Your task to perform on an android device: Search for sushi restaurants on Maps Image 0: 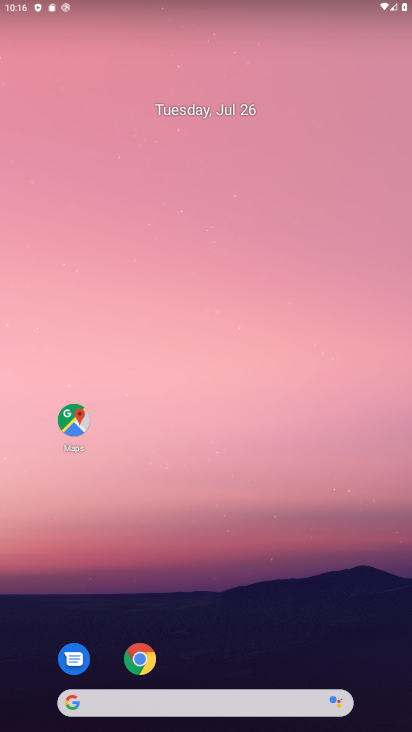
Step 0: press home button
Your task to perform on an android device: Search for sushi restaurants on Maps Image 1: 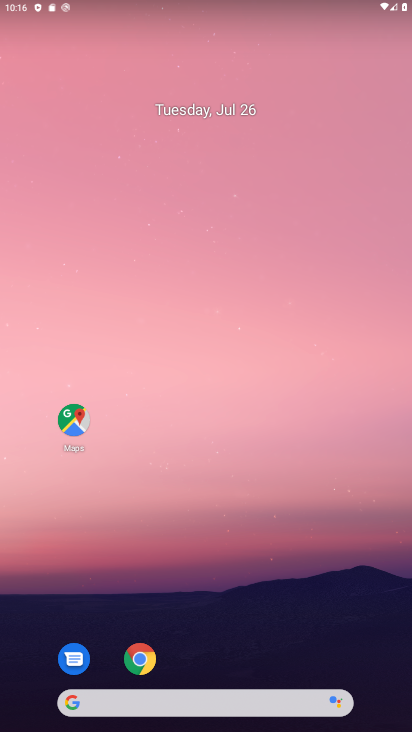
Step 1: drag from (337, 628) to (406, 56)
Your task to perform on an android device: Search for sushi restaurants on Maps Image 2: 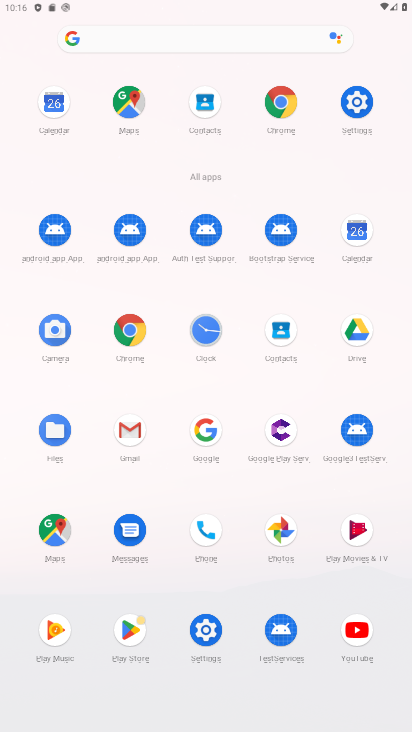
Step 2: click (126, 102)
Your task to perform on an android device: Search for sushi restaurants on Maps Image 3: 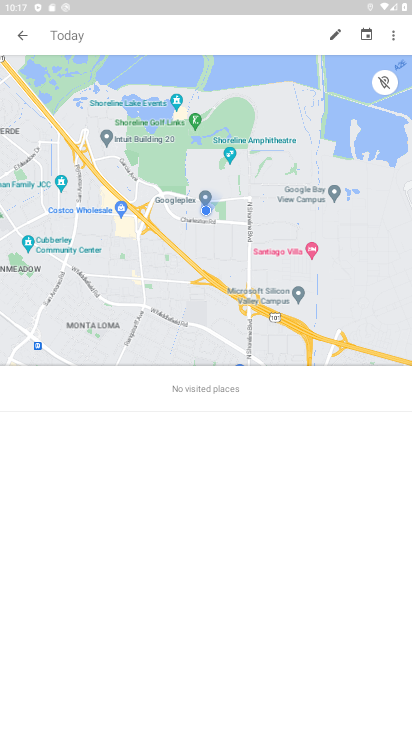
Step 3: click (25, 43)
Your task to perform on an android device: Search for sushi restaurants on Maps Image 4: 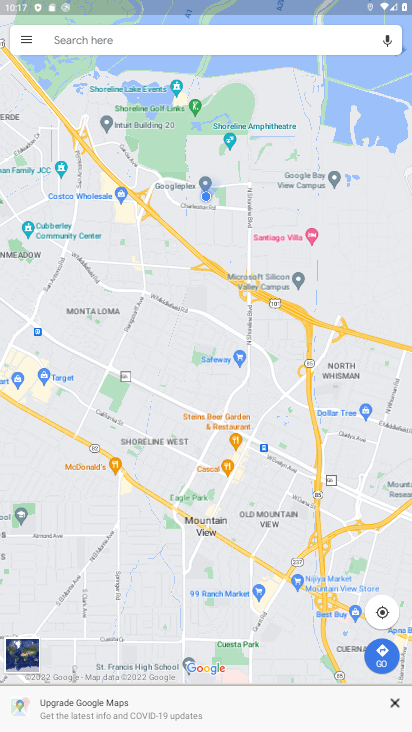
Step 4: click (122, 33)
Your task to perform on an android device: Search for sushi restaurants on Maps Image 5: 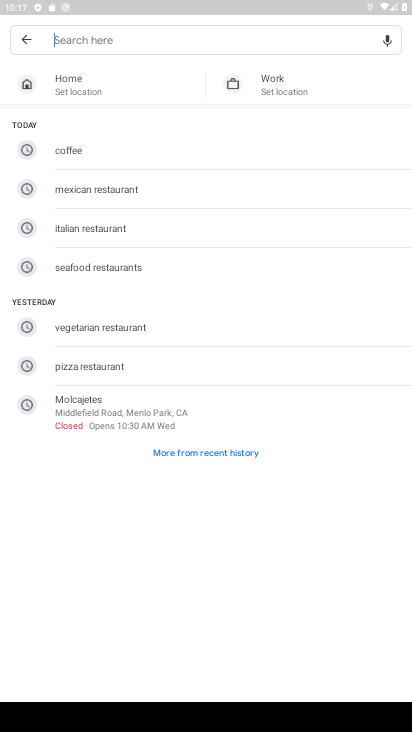
Step 5: type "sushi restaurants"
Your task to perform on an android device: Search for sushi restaurants on Maps Image 6: 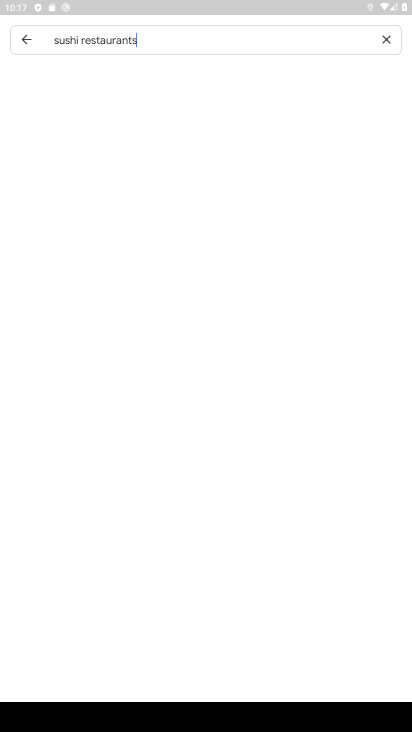
Step 6: type ""
Your task to perform on an android device: Search for sushi restaurants on Maps Image 7: 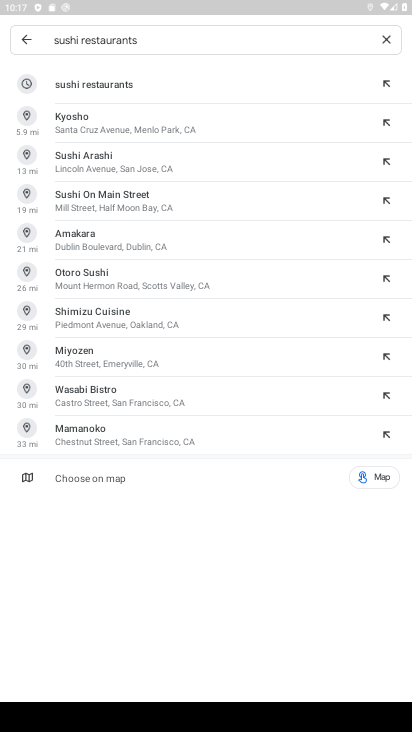
Step 7: click (110, 73)
Your task to perform on an android device: Search for sushi restaurants on Maps Image 8: 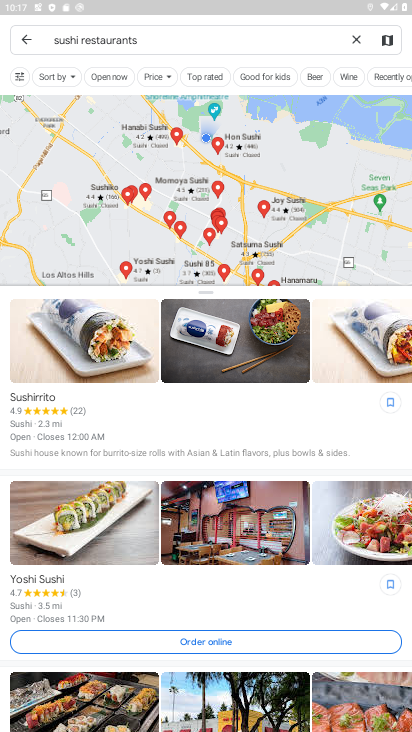
Step 8: task complete